Your task to perform on an android device: set the stopwatch Image 0: 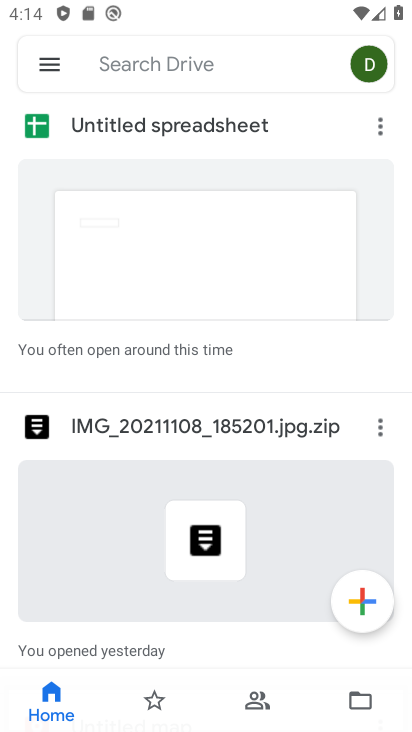
Step 0: press home button
Your task to perform on an android device: set the stopwatch Image 1: 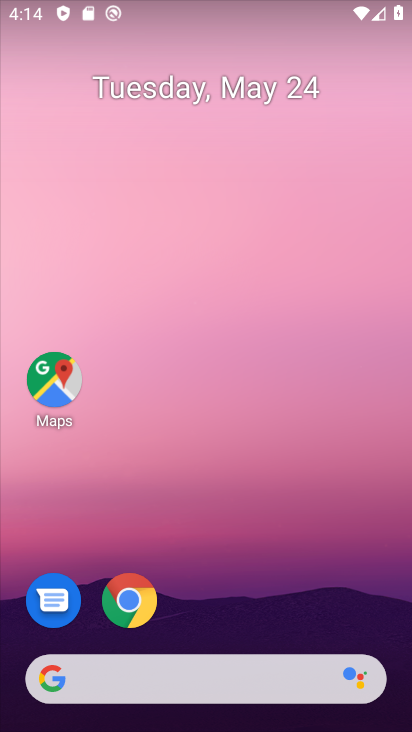
Step 1: drag from (261, 637) to (255, 405)
Your task to perform on an android device: set the stopwatch Image 2: 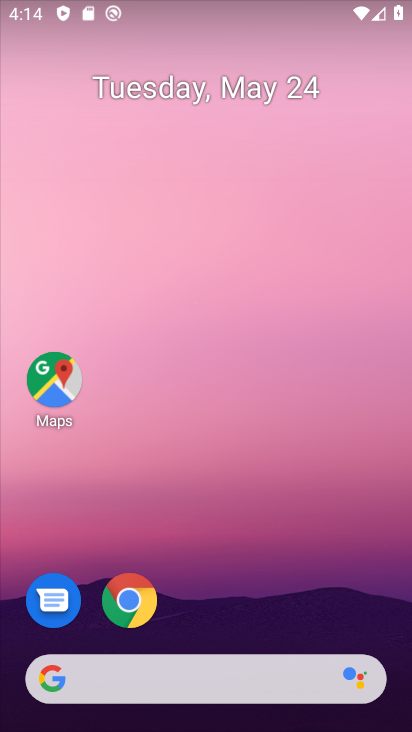
Step 2: drag from (246, 647) to (253, 0)
Your task to perform on an android device: set the stopwatch Image 3: 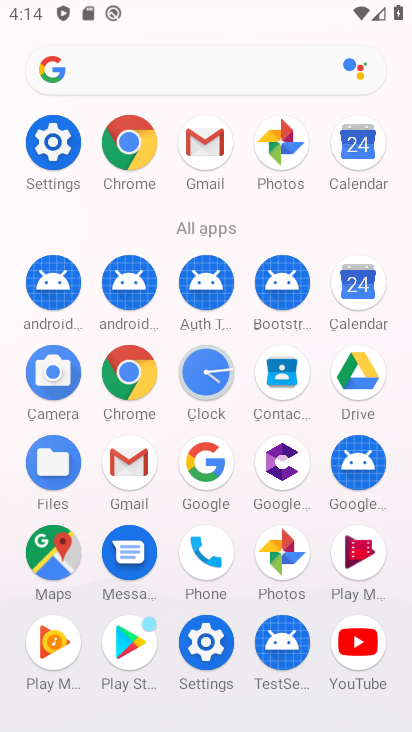
Step 3: click (200, 372)
Your task to perform on an android device: set the stopwatch Image 4: 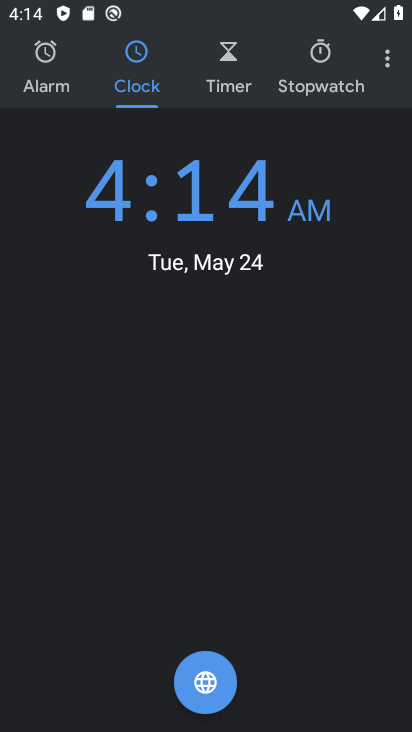
Step 4: click (304, 82)
Your task to perform on an android device: set the stopwatch Image 5: 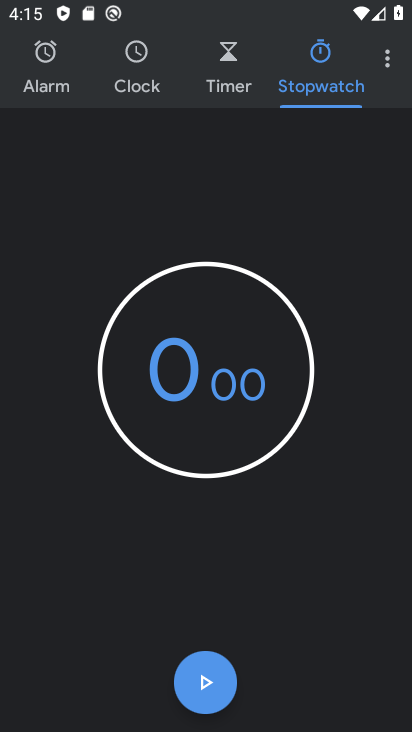
Step 5: click (214, 686)
Your task to perform on an android device: set the stopwatch Image 6: 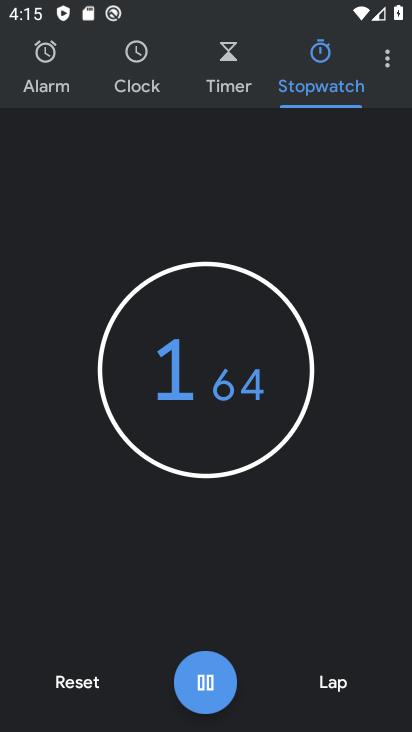
Step 6: click (210, 681)
Your task to perform on an android device: set the stopwatch Image 7: 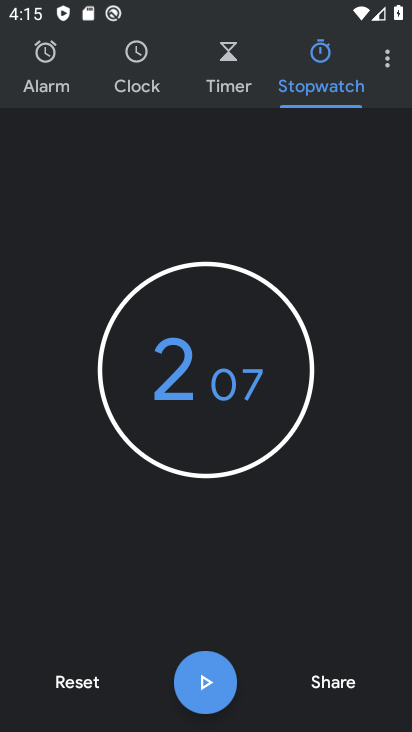
Step 7: task complete